Your task to perform on an android device: turn off javascript in the chrome app Image 0: 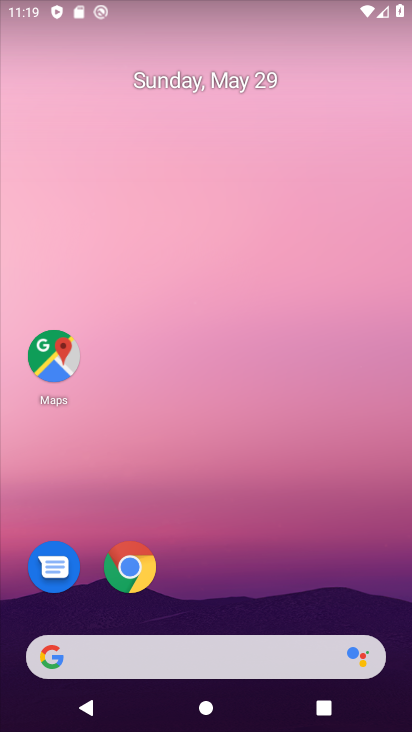
Step 0: drag from (238, 558) to (242, 158)
Your task to perform on an android device: turn off javascript in the chrome app Image 1: 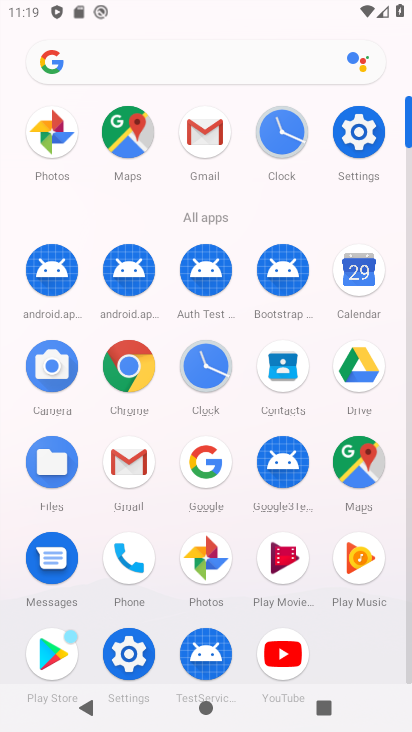
Step 1: click (132, 372)
Your task to perform on an android device: turn off javascript in the chrome app Image 2: 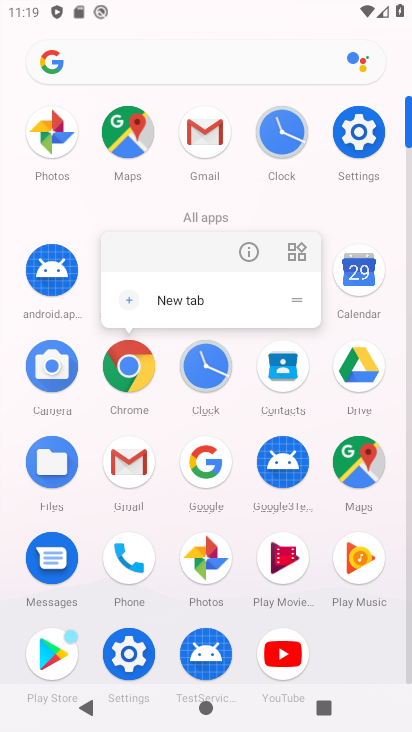
Step 2: click (132, 374)
Your task to perform on an android device: turn off javascript in the chrome app Image 3: 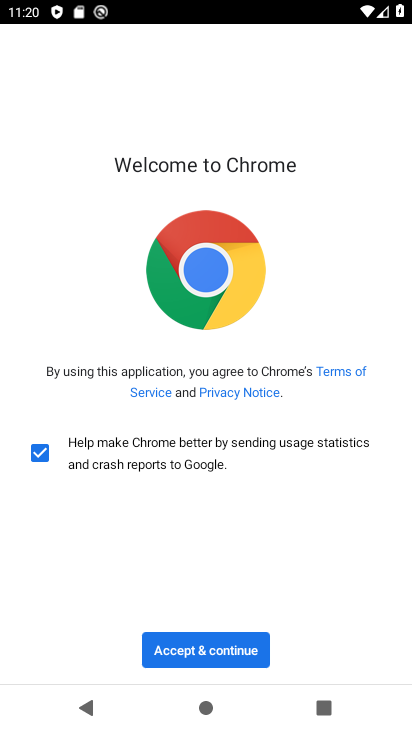
Step 3: click (221, 643)
Your task to perform on an android device: turn off javascript in the chrome app Image 4: 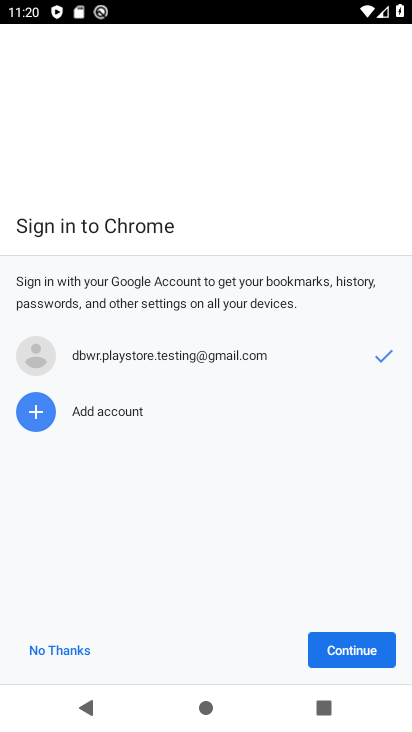
Step 4: click (355, 640)
Your task to perform on an android device: turn off javascript in the chrome app Image 5: 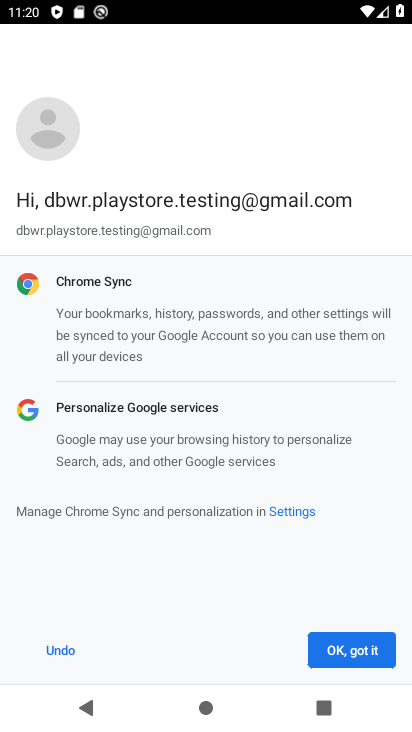
Step 5: click (355, 647)
Your task to perform on an android device: turn off javascript in the chrome app Image 6: 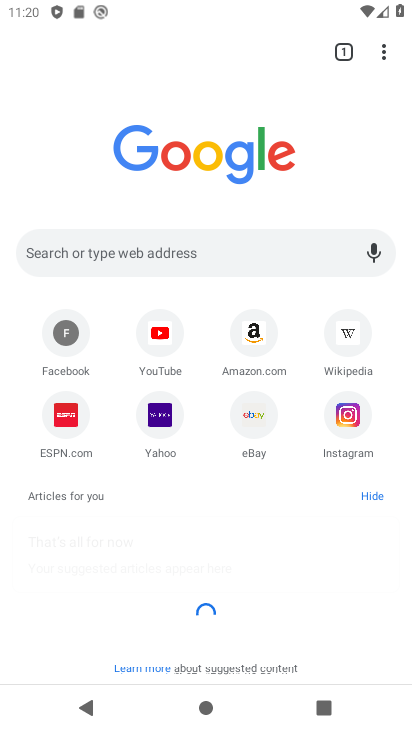
Step 6: drag from (387, 62) to (231, 431)
Your task to perform on an android device: turn off javascript in the chrome app Image 7: 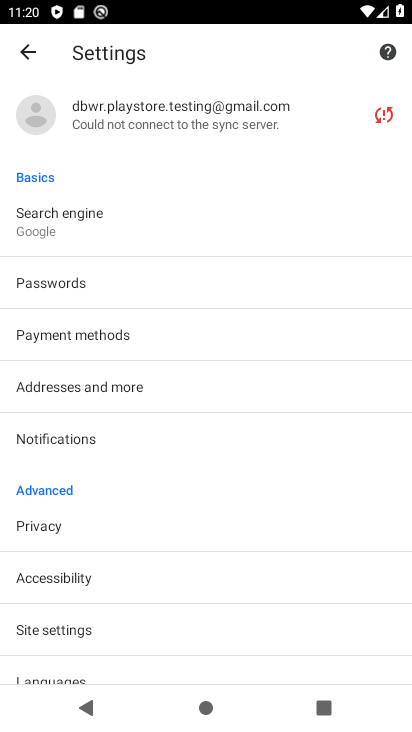
Step 7: drag from (172, 612) to (182, 304)
Your task to perform on an android device: turn off javascript in the chrome app Image 8: 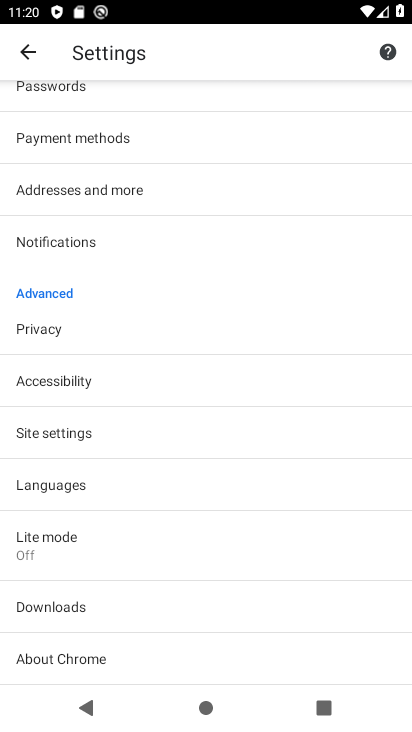
Step 8: click (120, 437)
Your task to perform on an android device: turn off javascript in the chrome app Image 9: 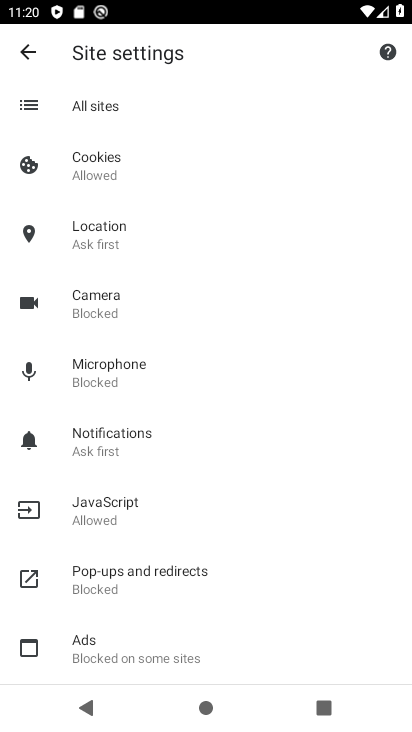
Step 9: click (139, 504)
Your task to perform on an android device: turn off javascript in the chrome app Image 10: 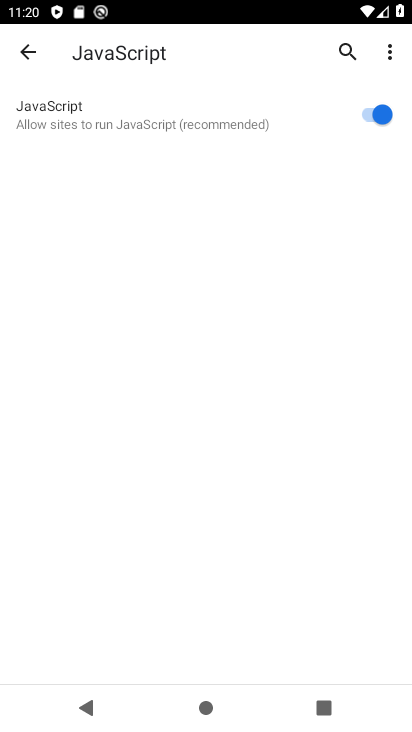
Step 10: click (370, 117)
Your task to perform on an android device: turn off javascript in the chrome app Image 11: 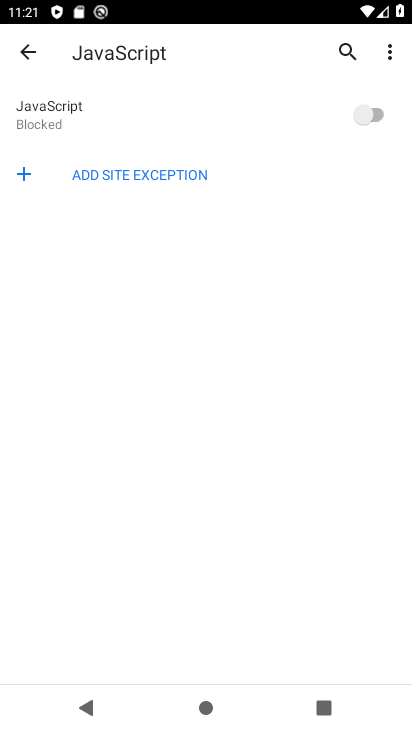
Step 11: task complete